Your task to perform on an android device: open chrome and create a bookmark for the current page Image 0: 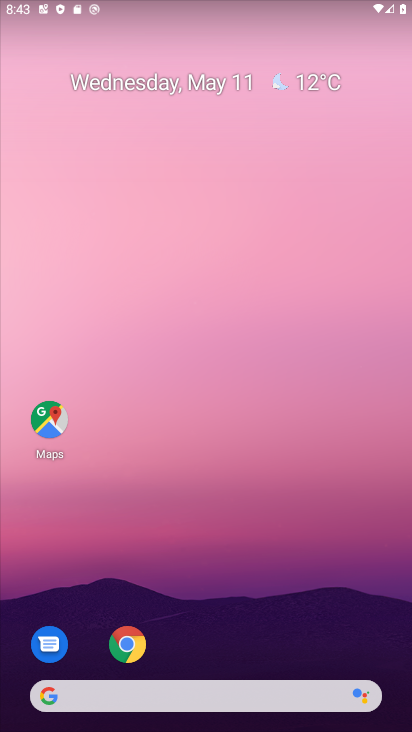
Step 0: click (119, 649)
Your task to perform on an android device: open chrome and create a bookmark for the current page Image 1: 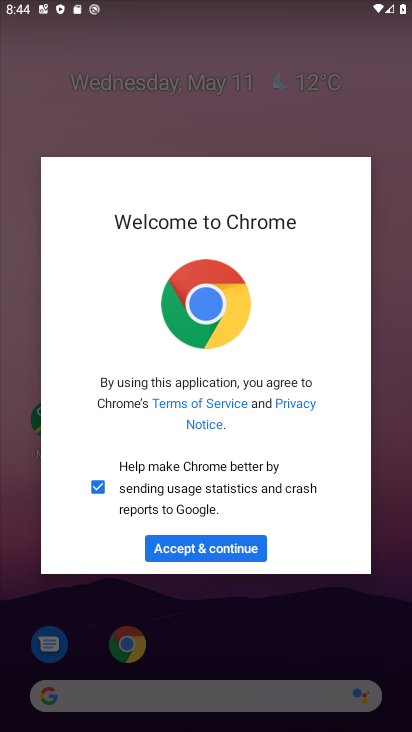
Step 1: click (209, 547)
Your task to perform on an android device: open chrome and create a bookmark for the current page Image 2: 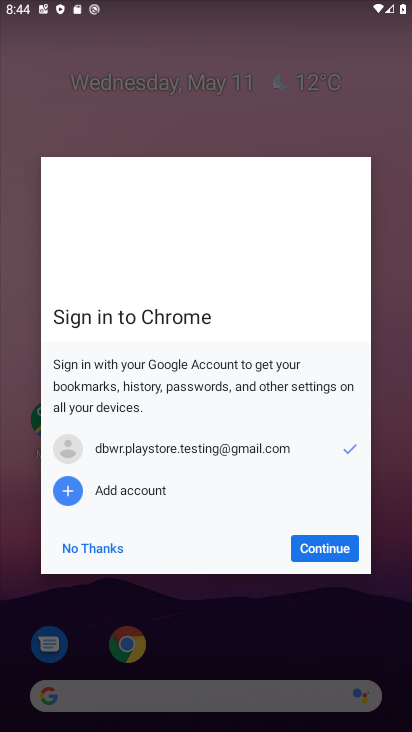
Step 2: click (347, 546)
Your task to perform on an android device: open chrome and create a bookmark for the current page Image 3: 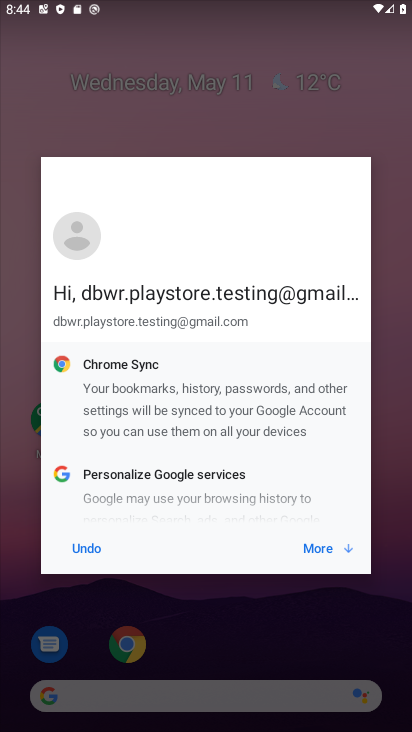
Step 3: click (318, 547)
Your task to perform on an android device: open chrome and create a bookmark for the current page Image 4: 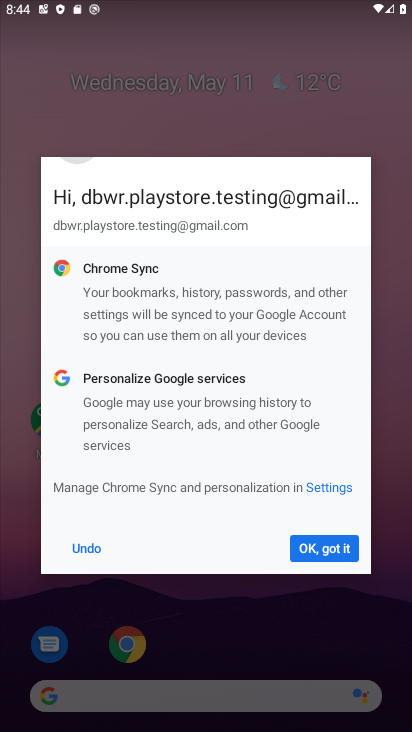
Step 4: click (318, 547)
Your task to perform on an android device: open chrome and create a bookmark for the current page Image 5: 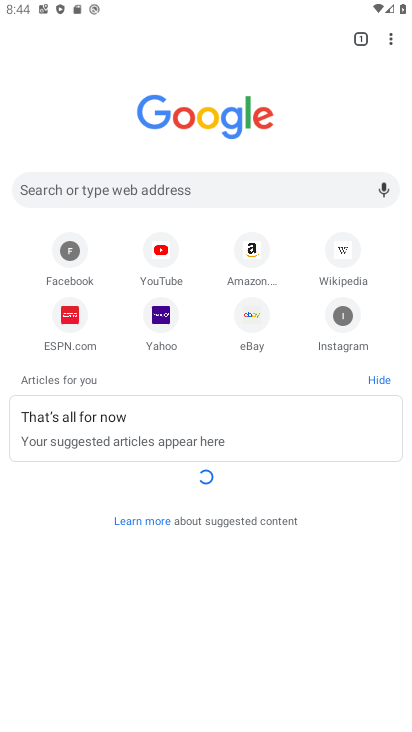
Step 5: click (389, 39)
Your task to perform on an android device: open chrome and create a bookmark for the current page Image 6: 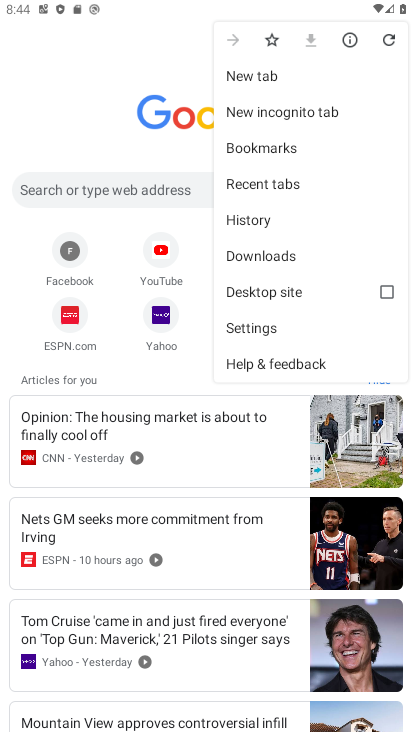
Step 6: click (273, 42)
Your task to perform on an android device: open chrome and create a bookmark for the current page Image 7: 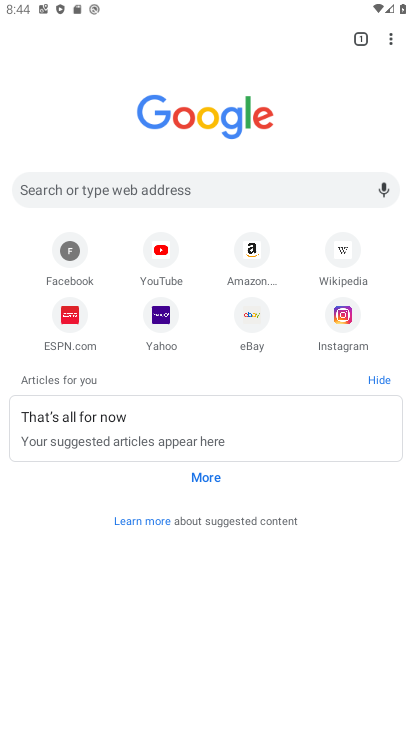
Step 7: task complete